Your task to perform on an android device: toggle translation in the chrome app Image 0: 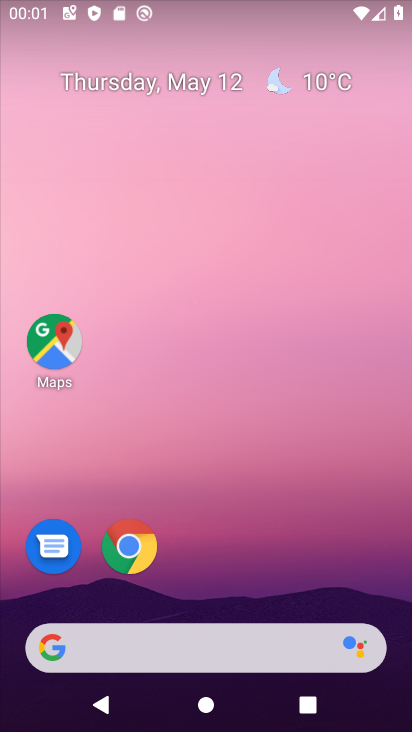
Step 0: click (133, 545)
Your task to perform on an android device: toggle translation in the chrome app Image 1: 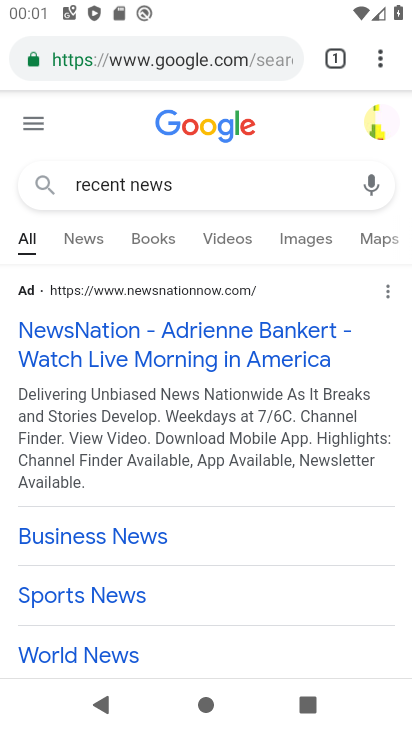
Step 1: click (378, 61)
Your task to perform on an android device: toggle translation in the chrome app Image 2: 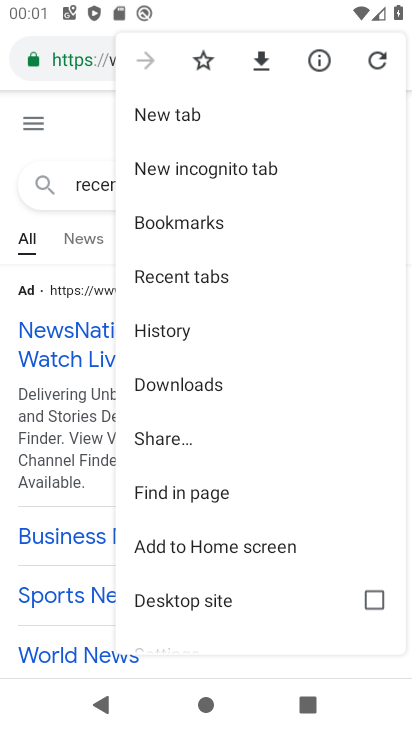
Step 2: drag from (205, 508) to (291, 138)
Your task to perform on an android device: toggle translation in the chrome app Image 3: 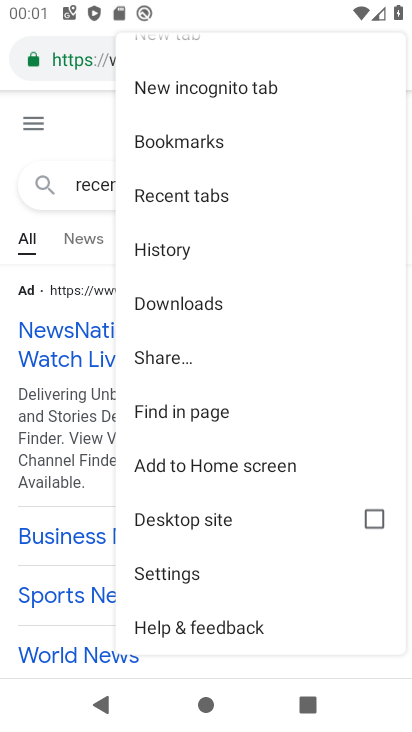
Step 3: click (196, 574)
Your task to perform on an android device: toggle translation in the chrome app Image 4: 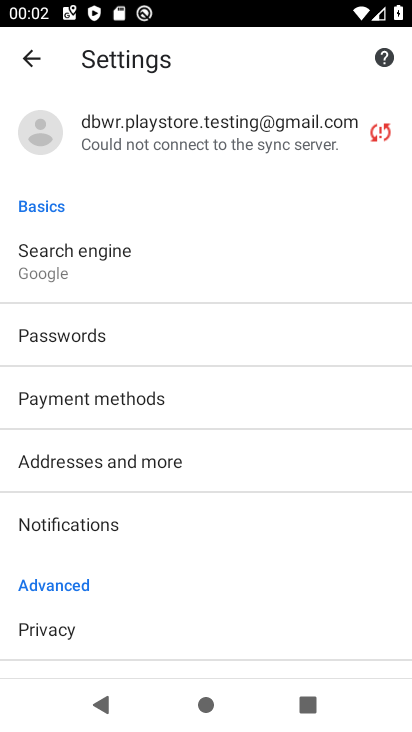
Step 4: drag from (116, 555) to (146, 317)
Your task to perform on an android device: toggle translation in the chrome app Image 5: 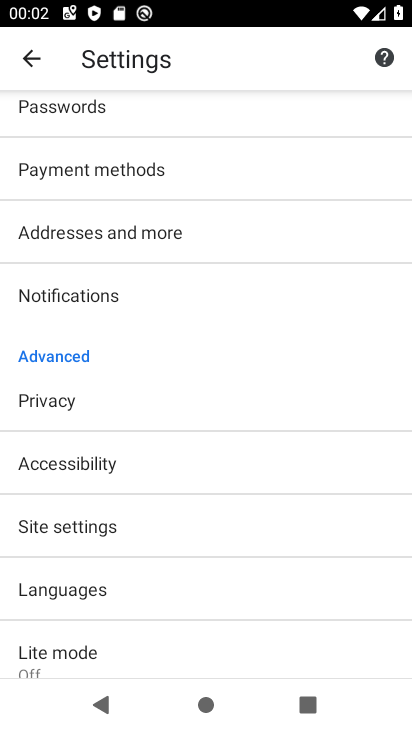
Step 5: click (76, 598)
Your task to perform on an android device: toggle translation in the chrome app Image 6: 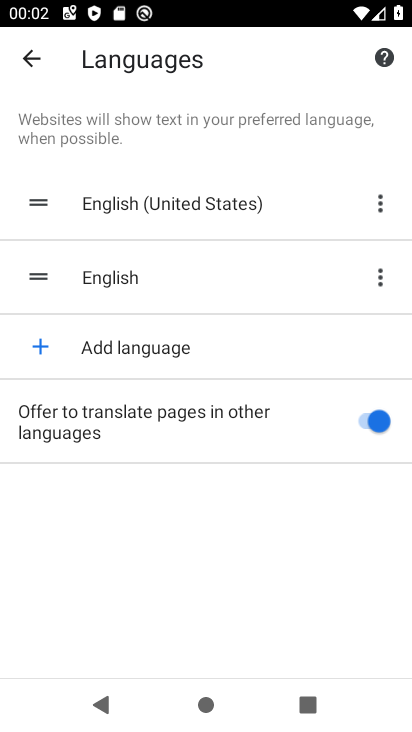
Step 6: click (355, 425)
Your task to perform on an android device: toggle translation in the chrome app Image 7: 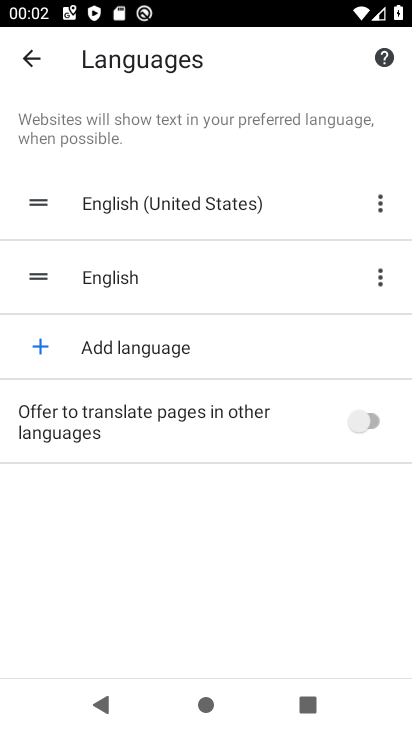
Step 7: task complete